Your task to perform on an android device: toggle notifications settings in the gmail app Image 0: 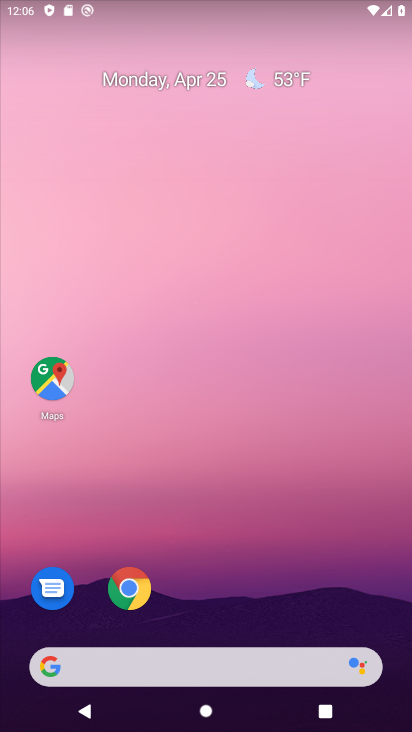
Step 0: drag from (236, 624) to (194, 173)
Your task to perform on an android device: toggle notifications settings in the gmail app Image 1: 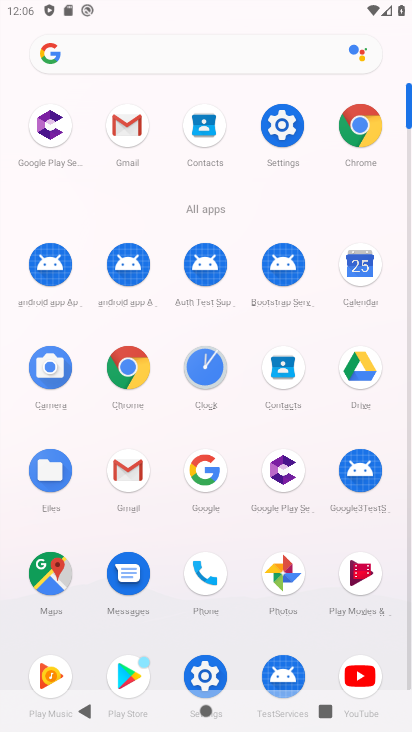
Step 1: click (118, 136)
Your task to perform on an android device: toggle notifications settings in the gmail app Image 2: 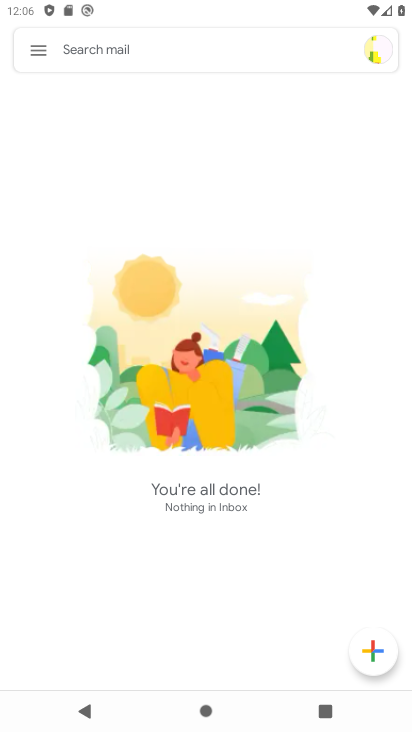
Step 2: click (27, 50)
Your task to perform on an android device: toggle notifications settings in the gmail app Image 3: 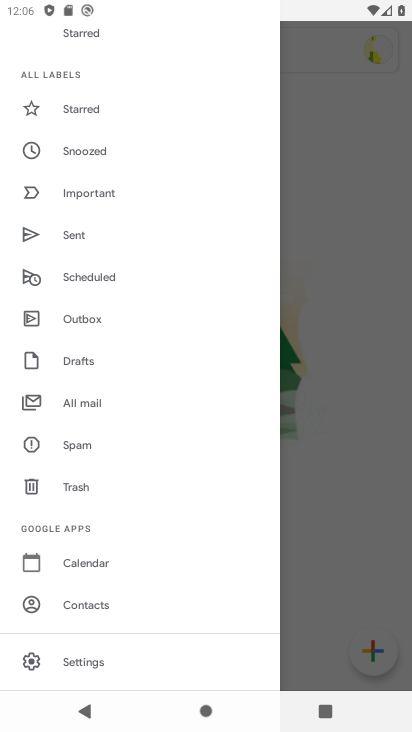
Step 3: drag from (161, 538) to (156, 370)
Your task to perform on an android device: toggle notifications settings in the gmail app Image 4: 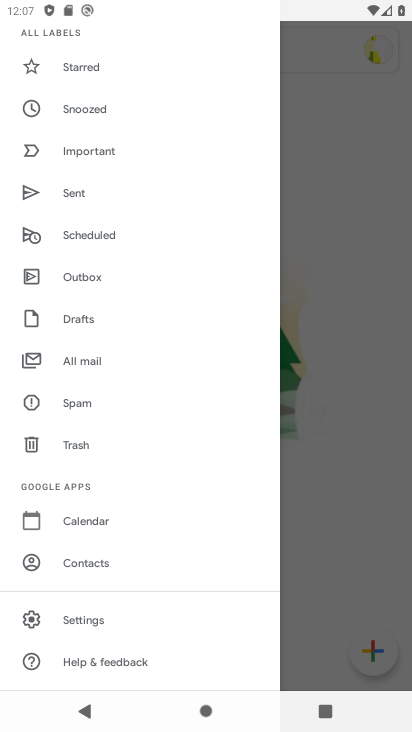
Step 4: click (116, 618)
Your task to perform on an android device: toggle notifications settings in the gmail app Image 5: 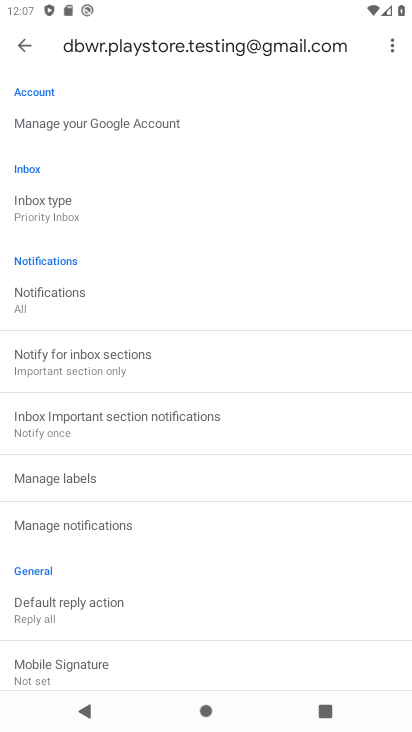
Step 5: drag from (181, 635) to (173, 490)
Your task to perform on an android device: toggle notifications settings in the gmail app Image 6: 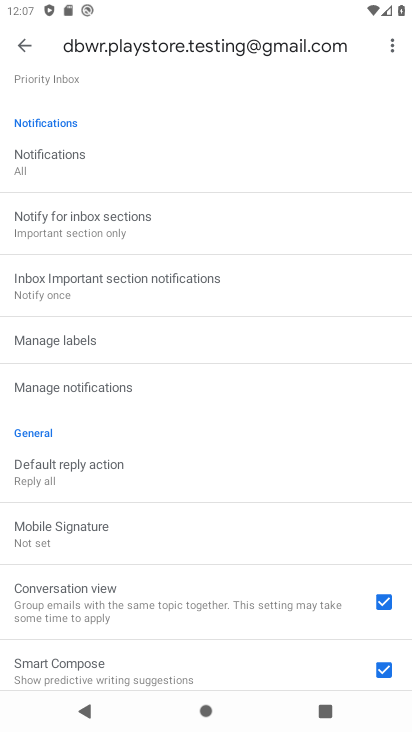
Step 6: click (184, 405)
Your task to perform on an android device: toggle notifications settings in the gmail app Image 7: 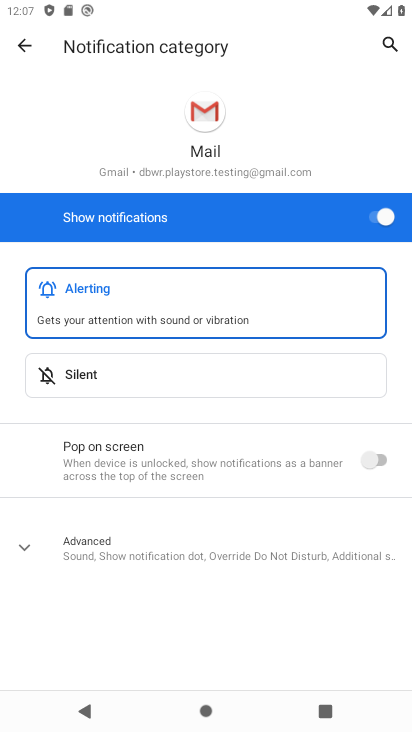
Step 7: click (193, 541)
Your task to perform on an android device: toggle notifications settings in the gmail app Image 8: 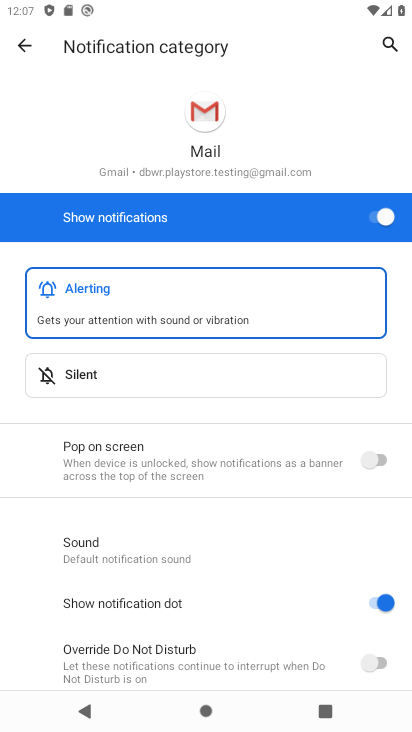
Step 8: drag from (202, 617) to (194, 413)
Your task to perform on an android device: toggle notifications settings in the gmail app Image 9: 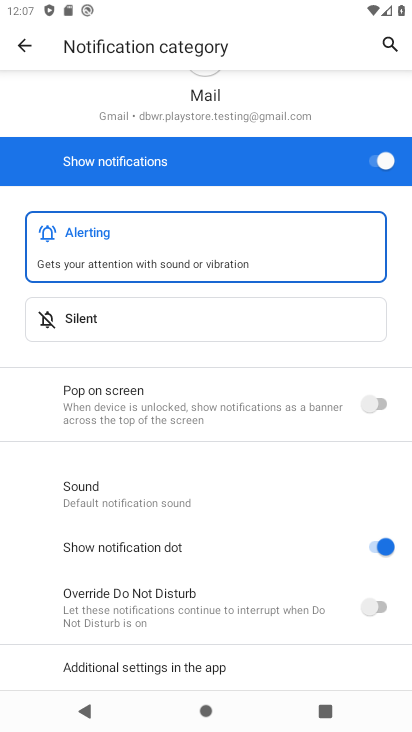
Step 9: click (288, 332)
Your task to perform on an android device: toggle notifications settings in the gmail app Image 10: 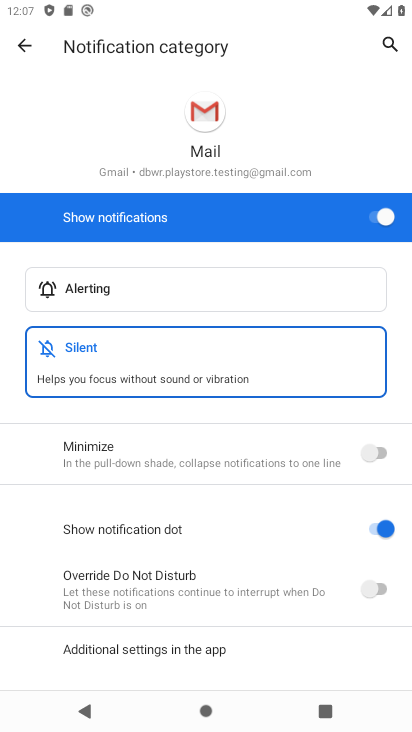
Step 10: click (375, 448)
Your task to perform on an android device: toggle notifications settings in the gmail app Image 11: 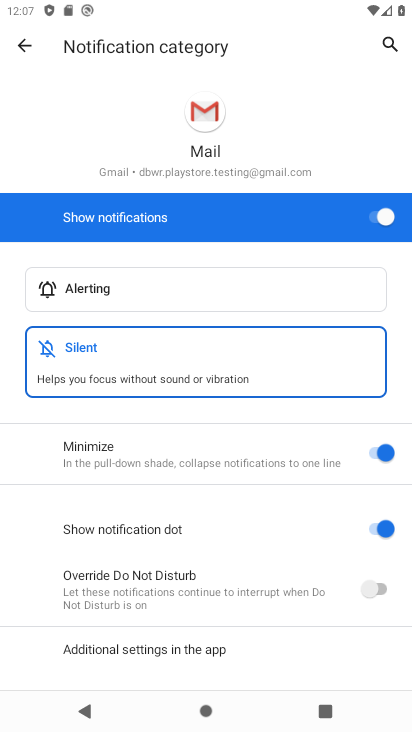
Step 11: task complete